Your task to perform on an android device: Do I have any events tomorrow? Image 0: 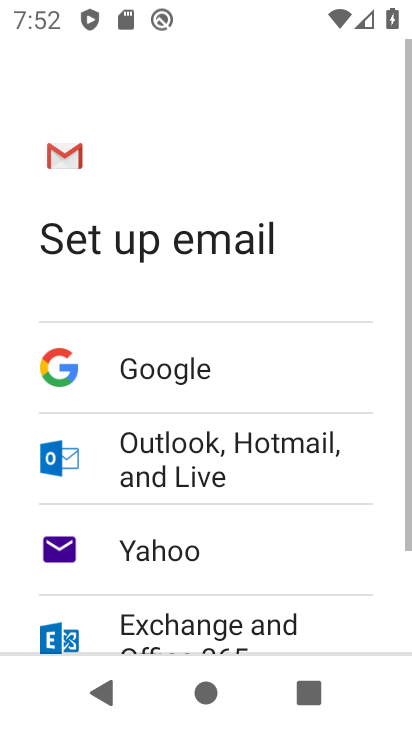
Step 0: press home button
Your task to perform on an android device: Do I have any events tomorrow? Image 1: 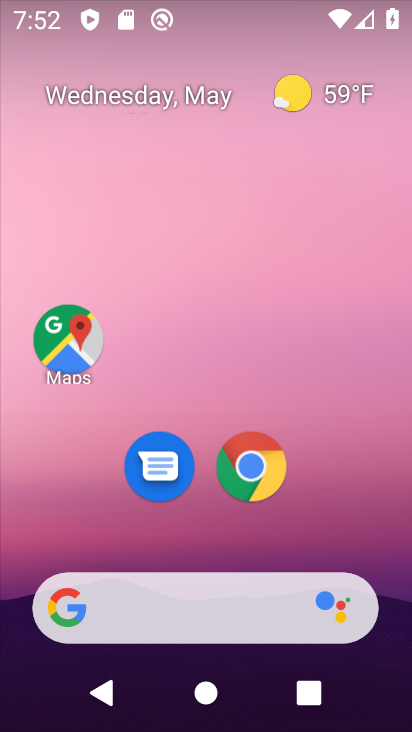
Step 1: drag from (310, 398) to (288, 195)
Your task to perform on an android device: Do I have any events tomorrow? Image 2: 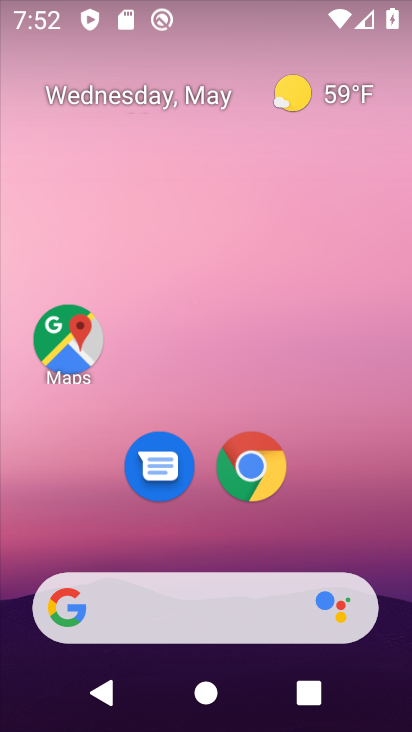
Step 2: drag from (334, 552) to (314, 164)
Your task to perform on an android device: Do I have any events tomorrow? Image 3: 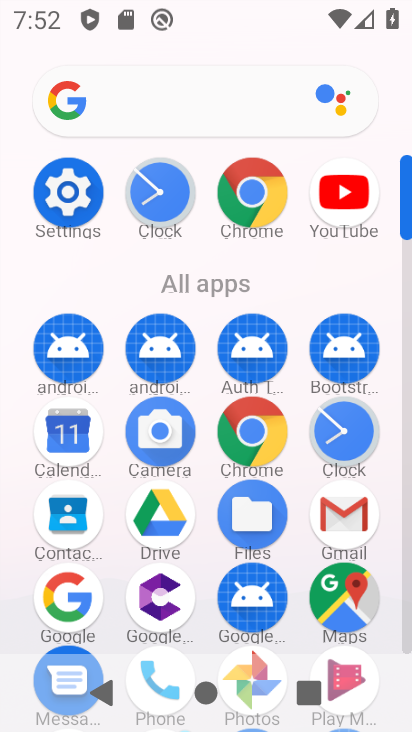
Step 3: click (52, 432)
Your task to perform on an android device: Do I have any events tomorrow? Image 4: 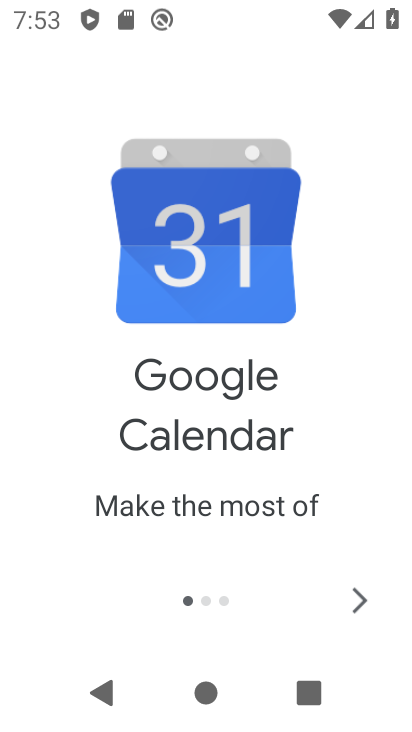
Step 4: click (343, 602)
Your task to perform on an android device: Do I have any events tomorrow? Image 5: 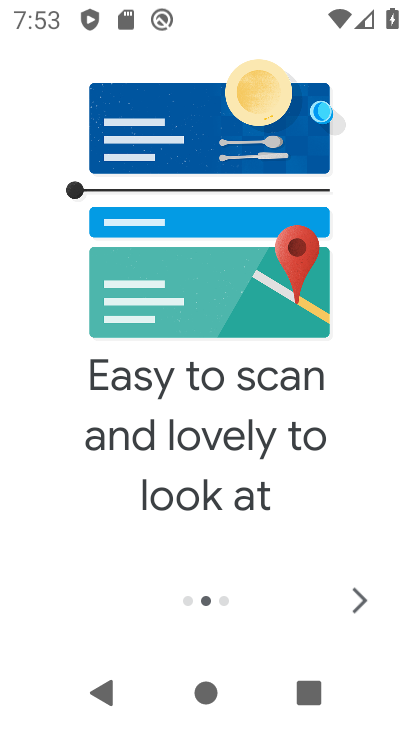
Step 5: click (348, 608)
Your task to perform on an android device: Do I have any events tomorrow? Image 6: 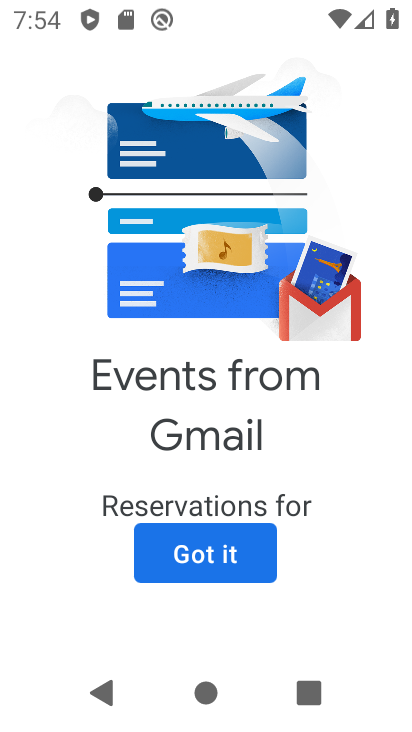
Step 6: click (203, 543)
Your task to perform on an android device: Do I have any events tomorrow? Image 7: 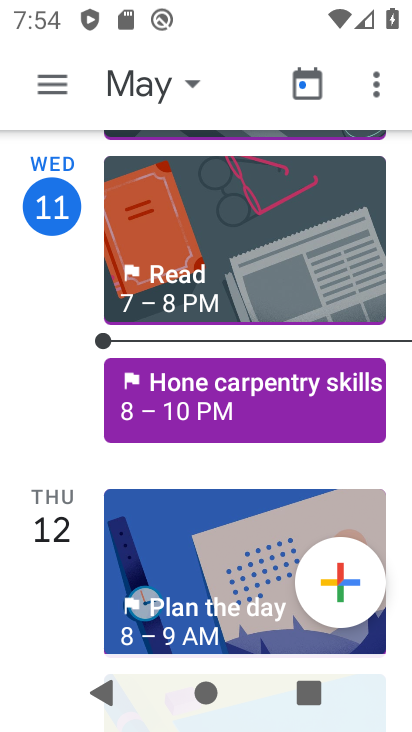
Step 7: click (50, 75)
Your task to perform on an android device: Do I have any events tomorrow? Image 8: 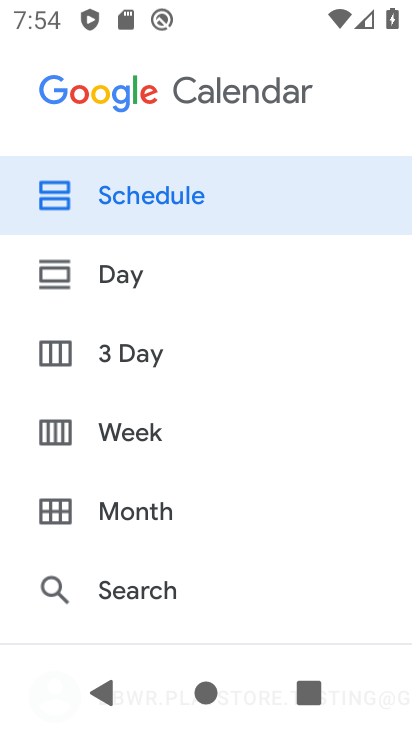
Step 8: click (155, 440)
Your task to perform on an android device: Do I have any events tomorrow? Image 9: 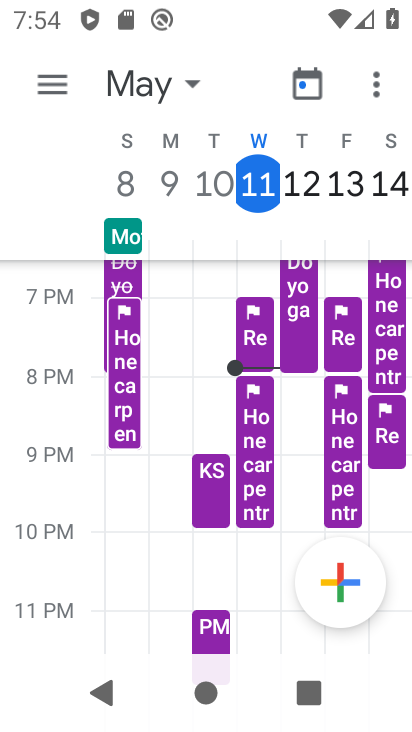
Step 9: click (298, 174)
Your task to perform on an android device: Do I have any events tomorrow? Image 10: 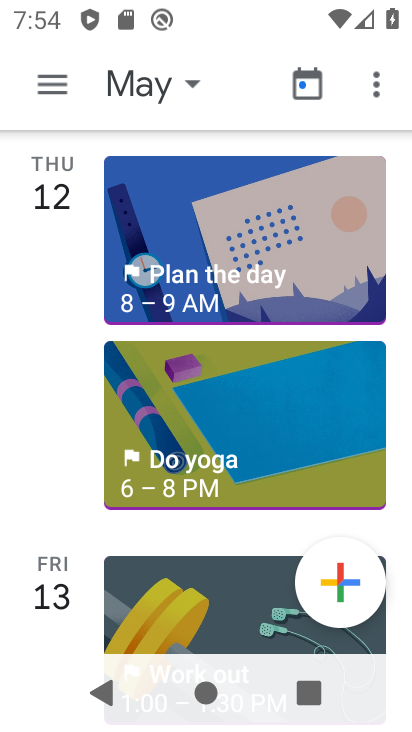
Step 10: task complete